Your task to perform on an android device: Clear the cart on ebay.com. Image 0: 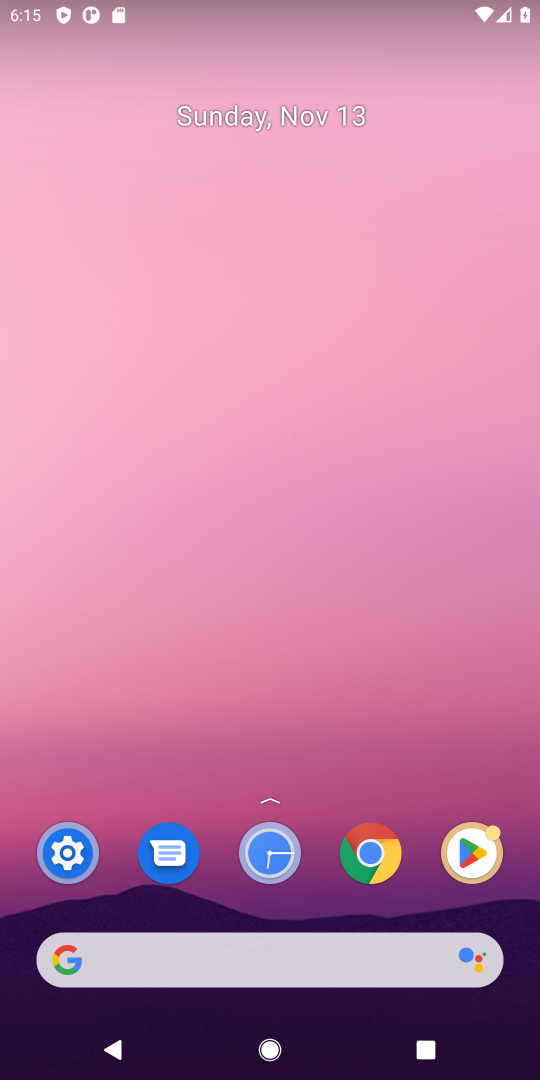
Step 0: press home button
Your task to perform on an android device: Clear the cart on ebay.com. Image 1: 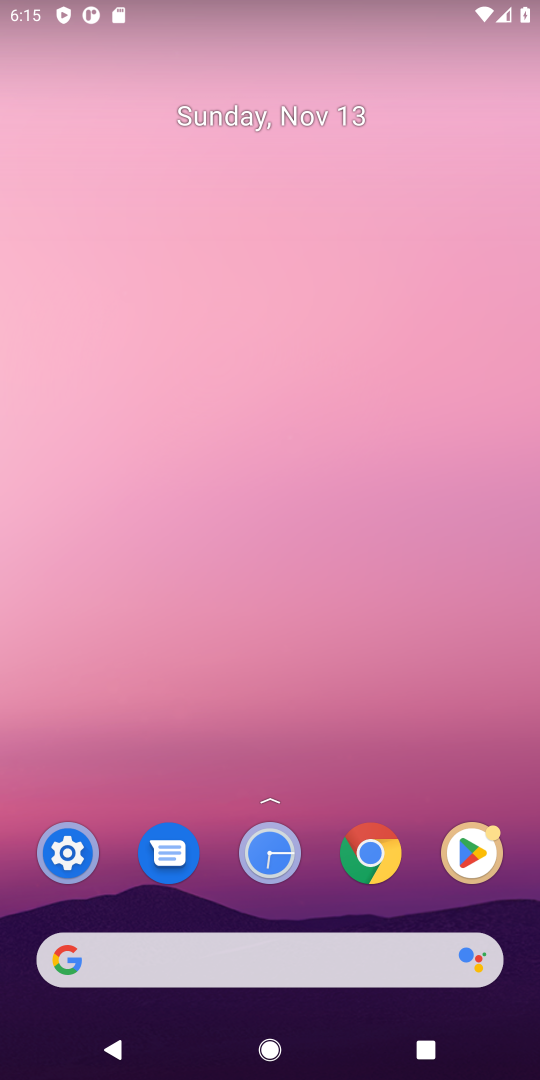
Step 1: click (119, 964)
Your task to perform on an android device: Clear the cart on ebay.com. Image 2: 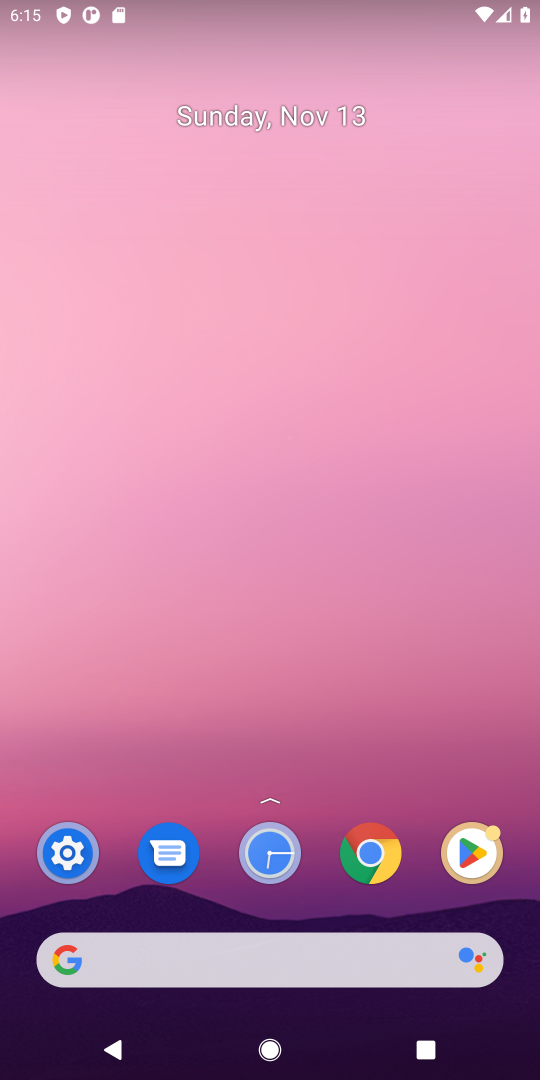
Step 2: type " ebay.com"
Your task to perform on an android device: Clear the cart on ebay.com. Image 3: 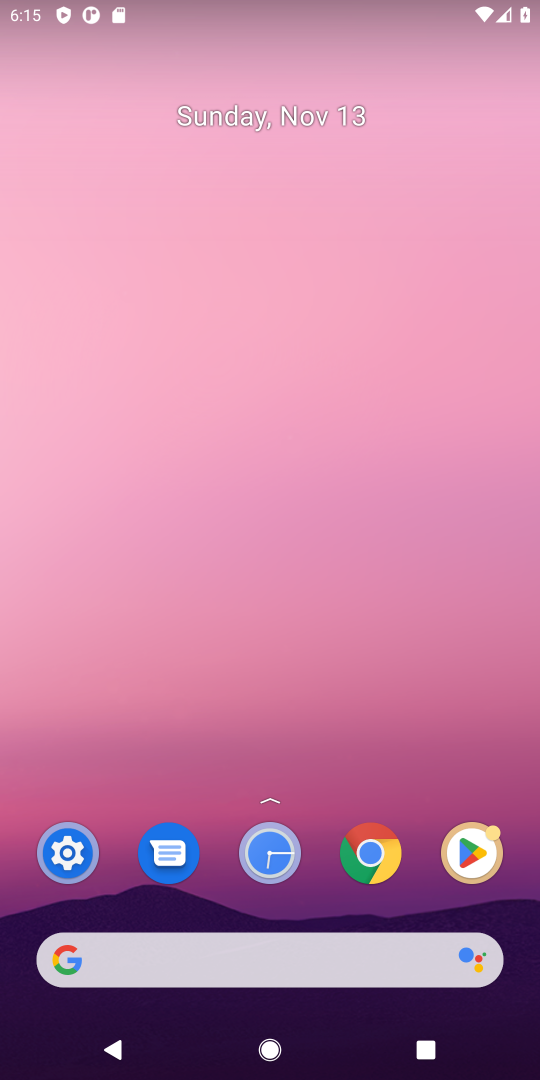
Step 3: click (163, 959)
Your task to perform on an android device: Clear the cart on ebay.com. Image 4: 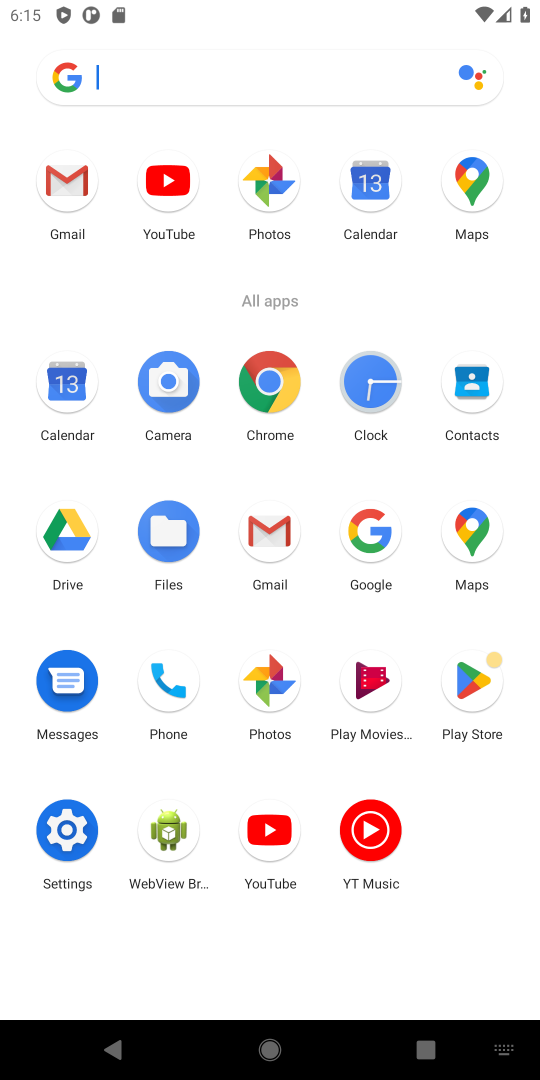
Step 4: click (95, 961)
Your task to perform on an android device: Clear the cart on ebay.com. Image 5: 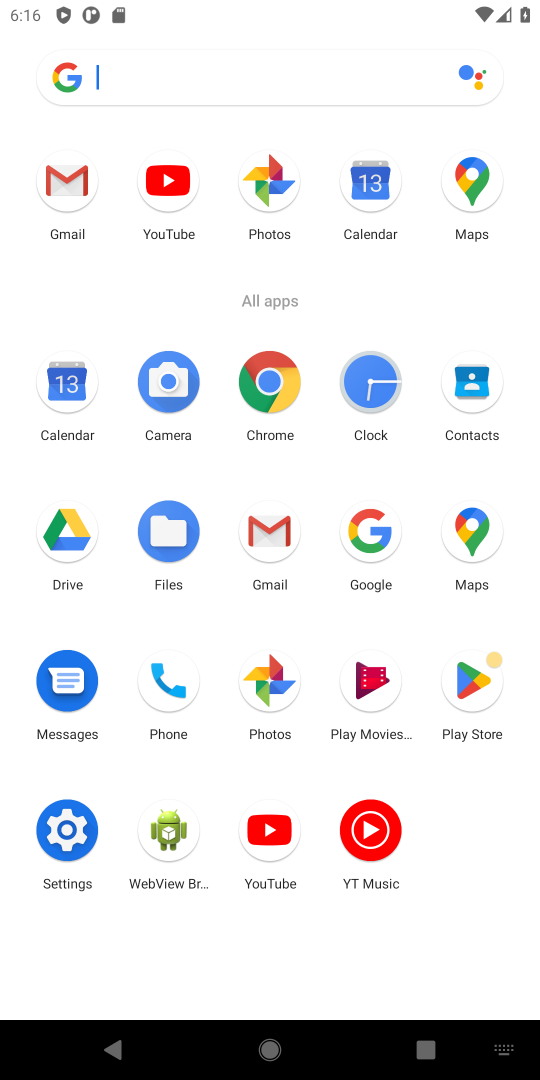
Step 5: click (366, 554)
Your task to perform on an android device: Clear the cart on ebay.com. Image 6: 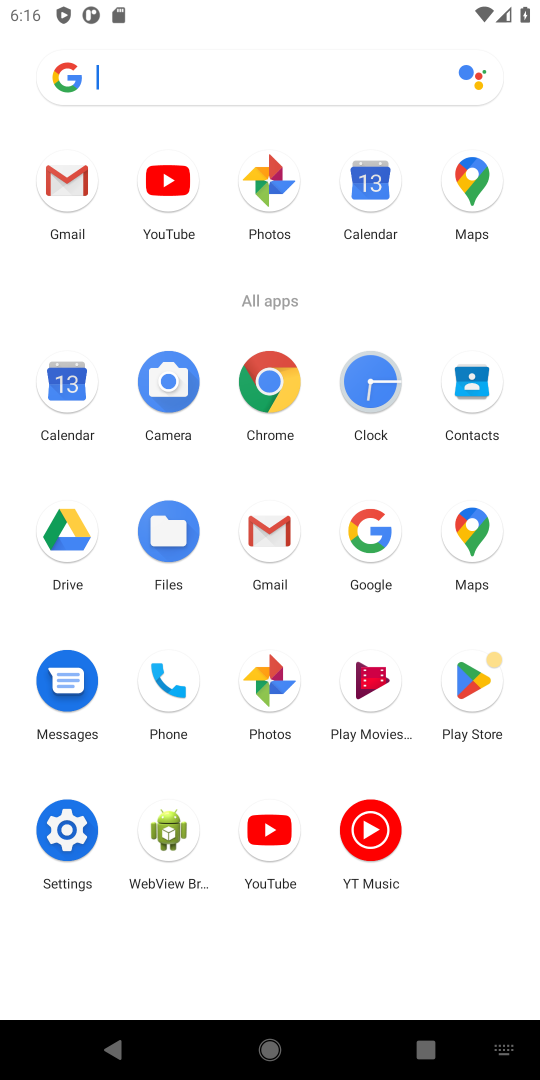
Step 6: press home button
Your task to perform on an android device: Clear the cart on ebay.com. Image 7: 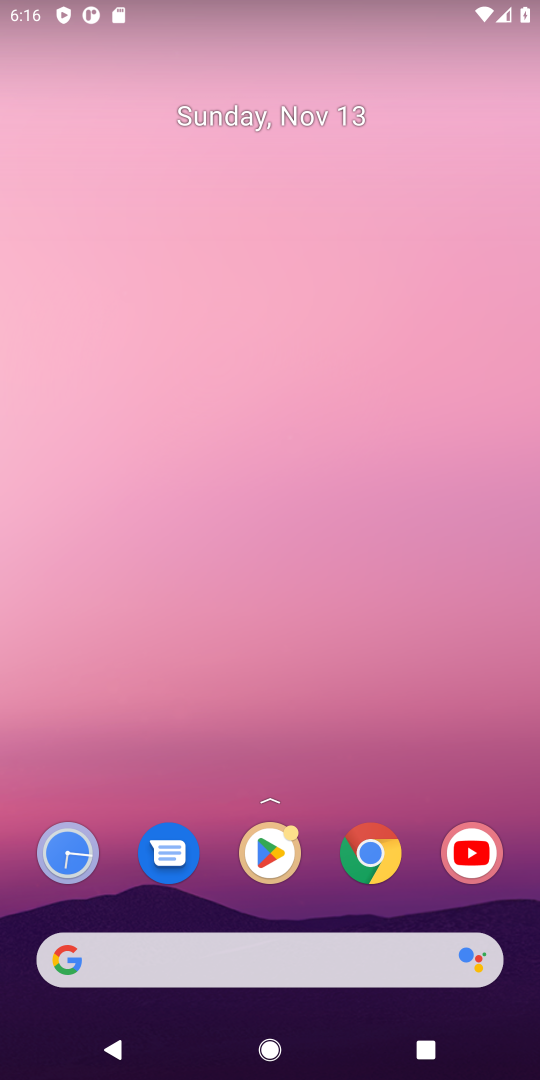
Step 7: click (98, 958)
Your task to perform on an android device: Clear the cart on ebay.com. Image 8: 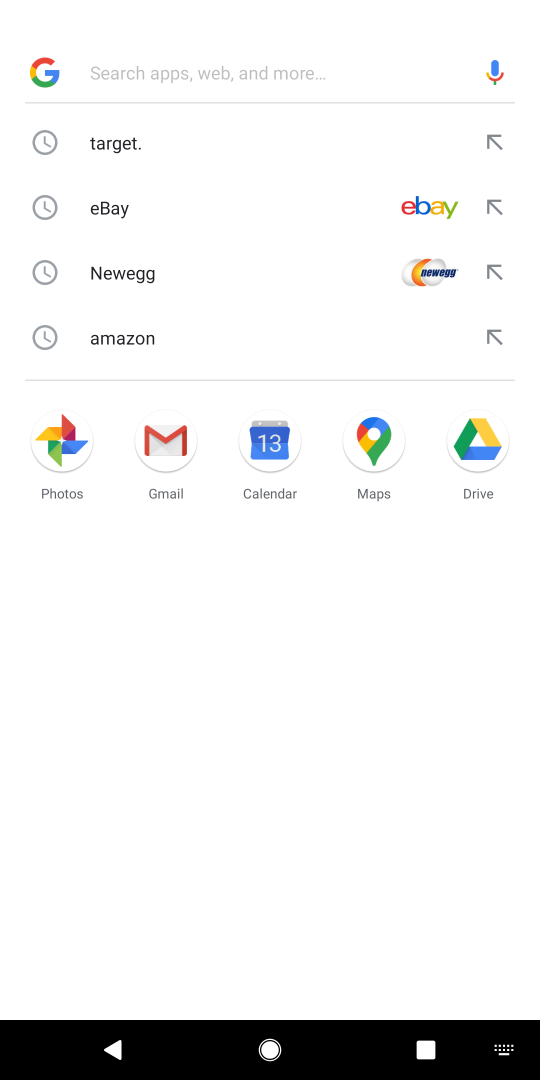
Step 8: click (114, 211)
Your task to perform on an android device: Clear the cart on ebay.com. Image 9: 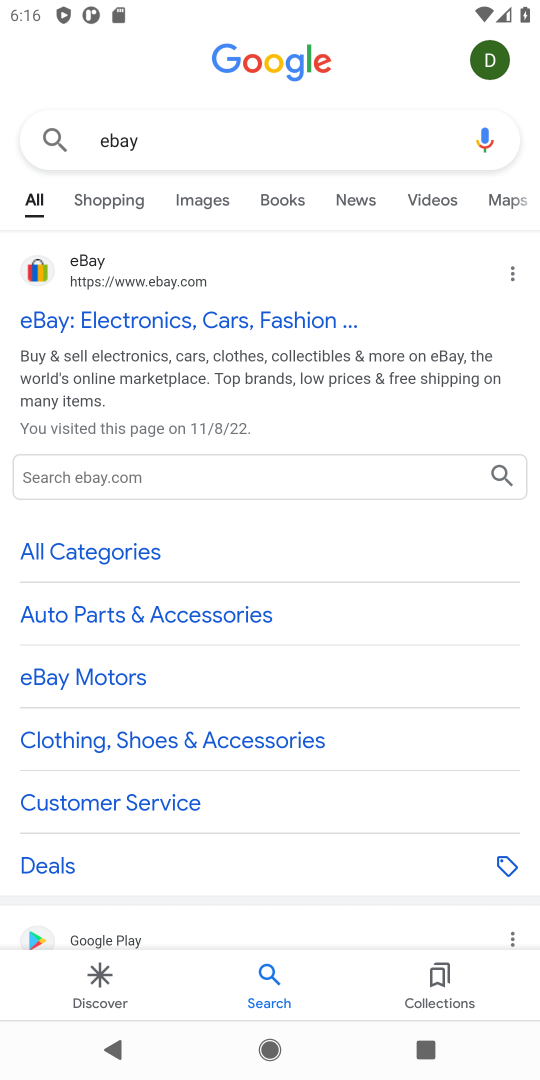
Step 9: click (173, 325)
Your task to perform on an android device: Clear the cart on ebay.com. Image 10: 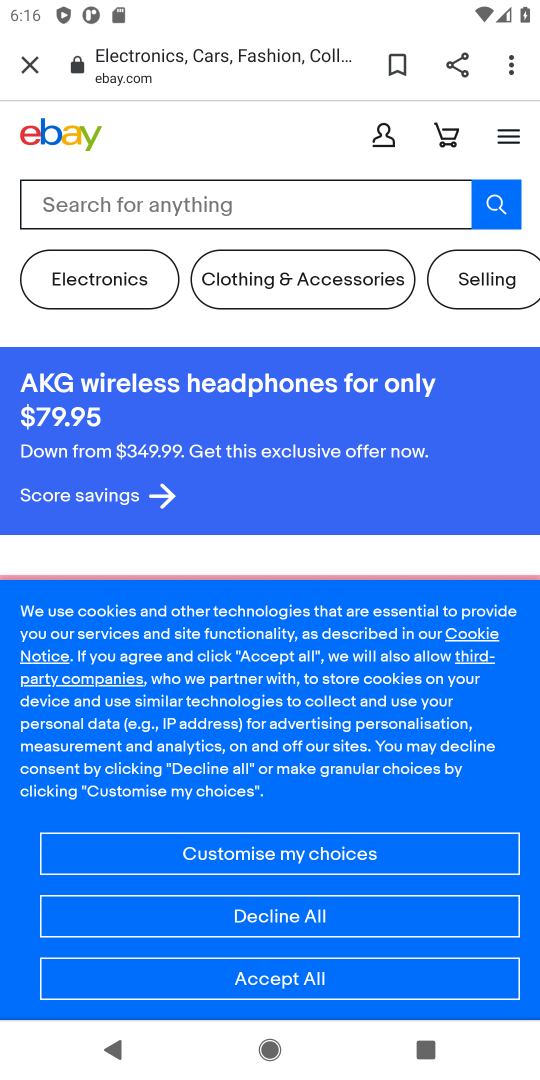
Step 10: click (455, 133)
Your task to perform on an android device: Clear the cart on ebay.com. Image 11: 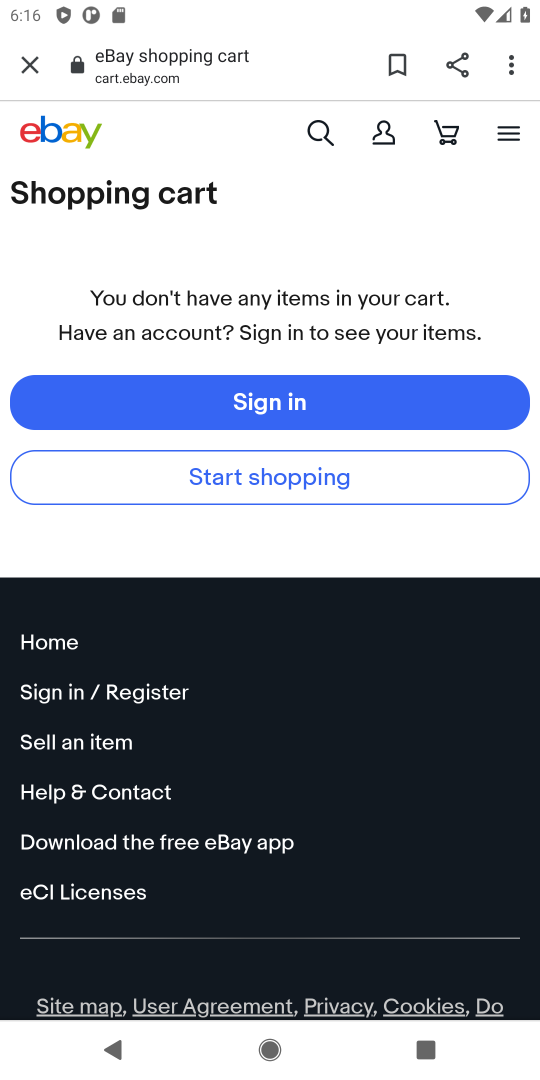
Step 11: task complete